Your task to perform on an android device: Go to Yahoo.com Image 0: 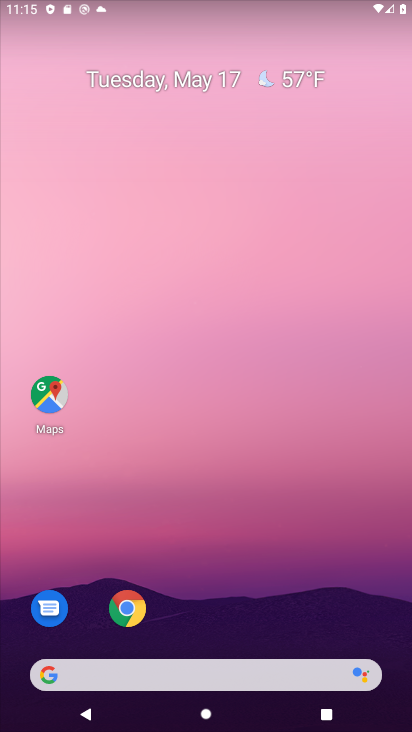
Step 0: click (128, 611)
Your task to perform on an android device: Go to Yahoo.com Image 1: 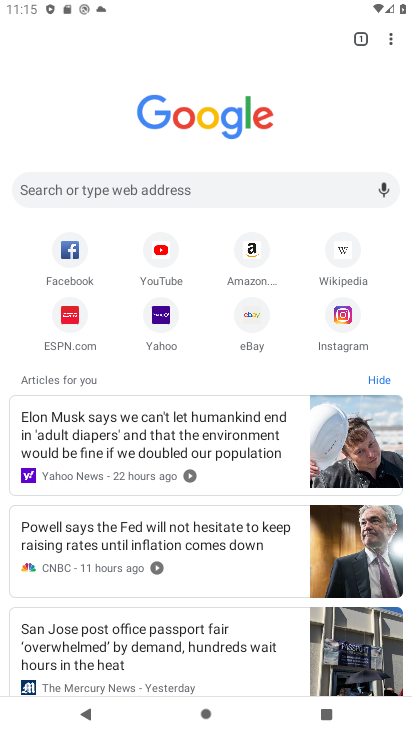
Step 1: click (157, 324)
Your task to perform on an android device: Go to Yahoo.com Image 2: 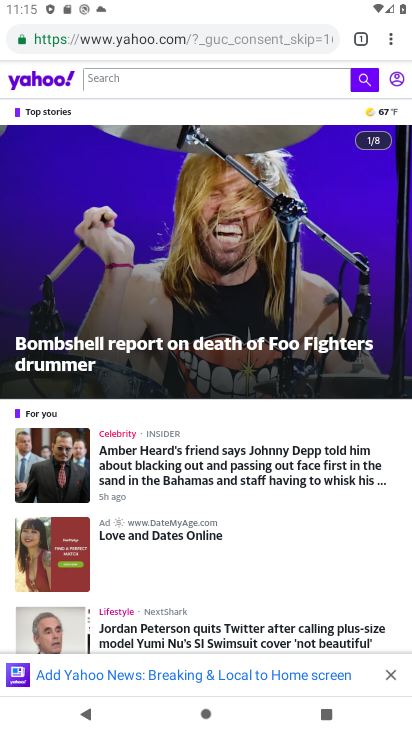
Step 2: task complete